Your task to perform on an android device: Open battery settings Image 0: 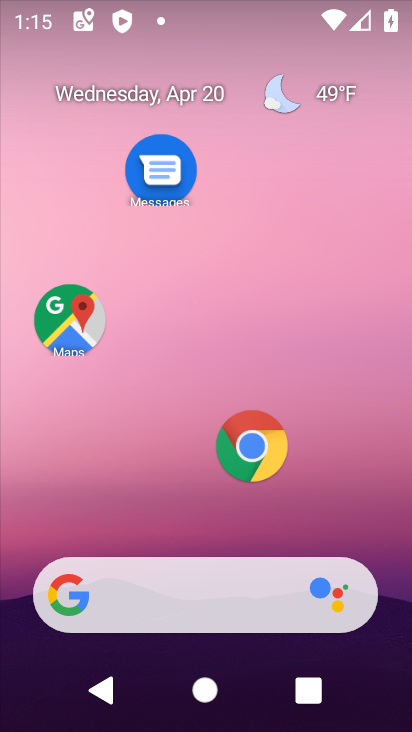
Step 0: click (196, 44)
Your task to perform on an android device: Open battery settings Image 1: 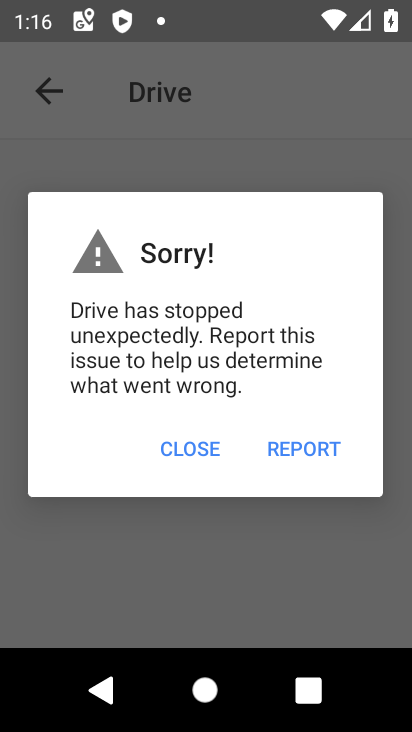
Step 1: press home button
Your task to perform on an android device: Open battery settings Image 2: 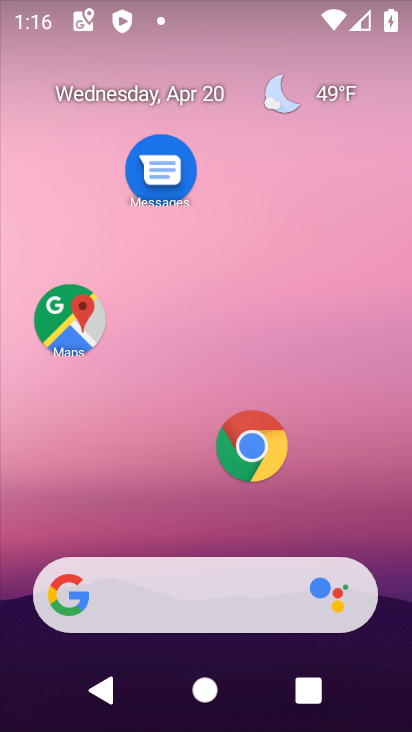
Step 2: drag from (228, 6) to (189, 46)
Your task to perform on an android device: Open battery settings Image 3: 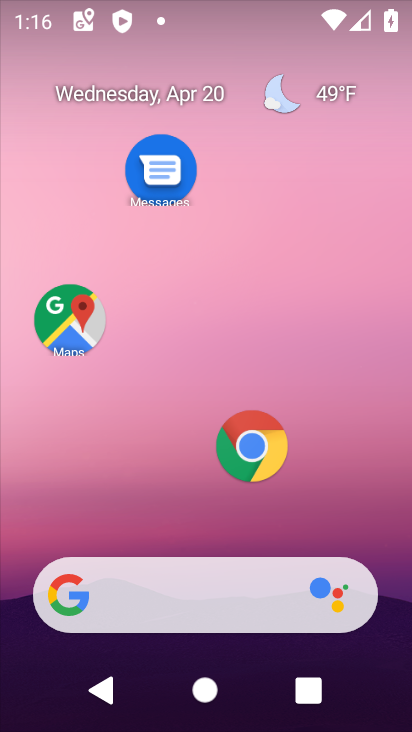
Step 3: drag from (209, 435) to (242, 16)
Your task to perform on an android device: Open battery settings Image 4: 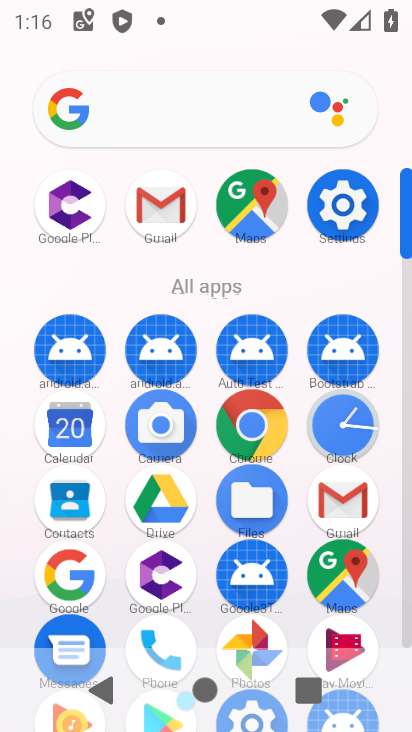
Step 4: click (341, 199)
Your task to perform on an android device: Open battery settings Image 5: 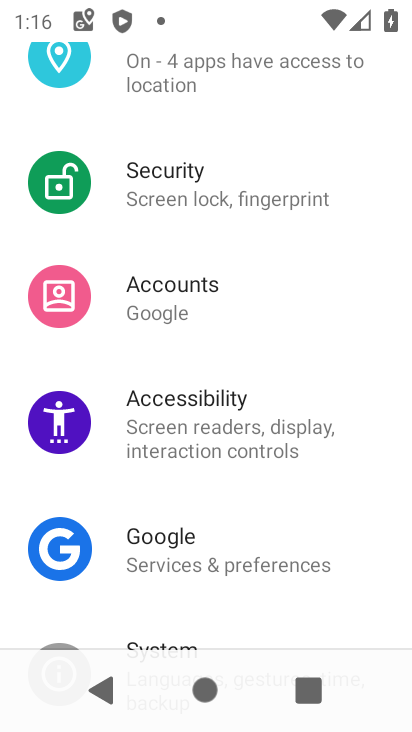
Step 5: drag from (227, 126) to (207, 605)
Your task to perform on an android device: Open battery settings Image 6: 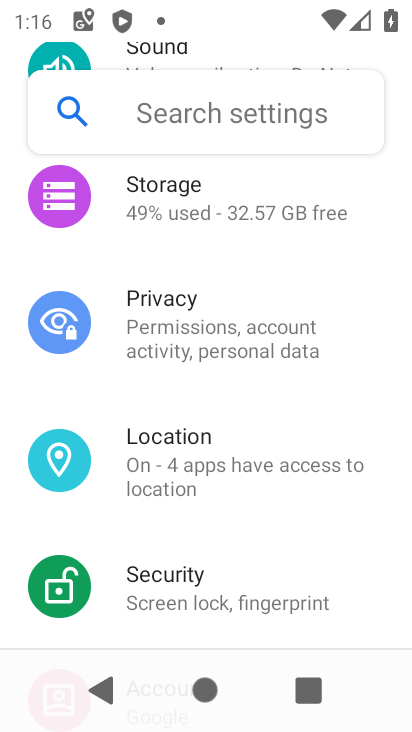
Step 6: drag from (186, 240) to (190, 631)
Your task to perform on an android device: Open battery settings Image 7: 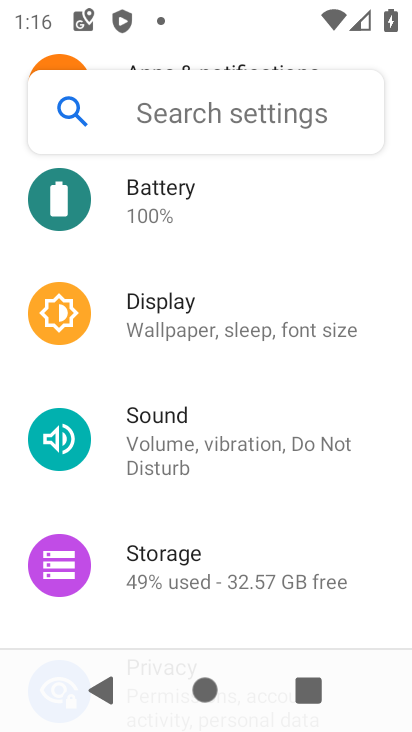
Step 7: click (113, 200)
Your task to perform on an android device: Open battery settings Image 8: 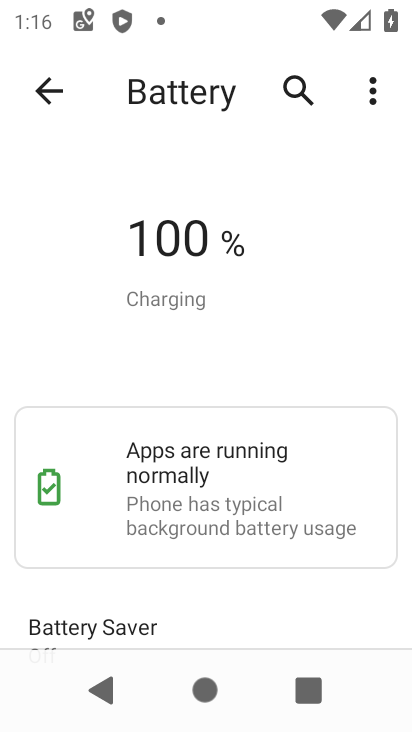
Step 8: task complete